Your task to perform on an android device: Open Google Chrome and click the shortcut for Amazon.com Image 0: 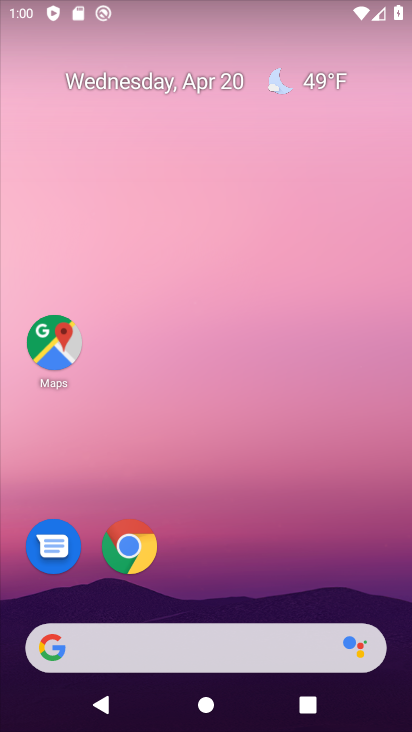
Step 0: click (130, 547)
Your task to perform on an android device: Open Google Chrome and click the shortcut for Amazon.com Image 1: 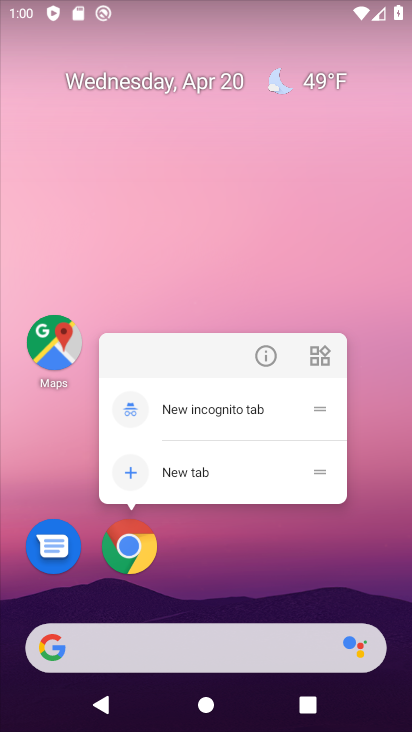
Step 1: click (129, 547)
Your task to perform on an android device: Open Google Chrome and click the shortcut for Amazon.com Image 2: 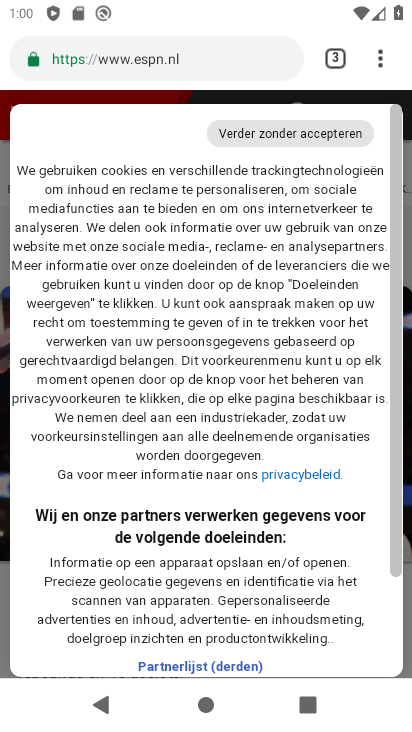
Step 2: click (333, 53)
Your task to perform on an android device: Open Google Chrome and click the shortcut for Amazon.com Image 3: 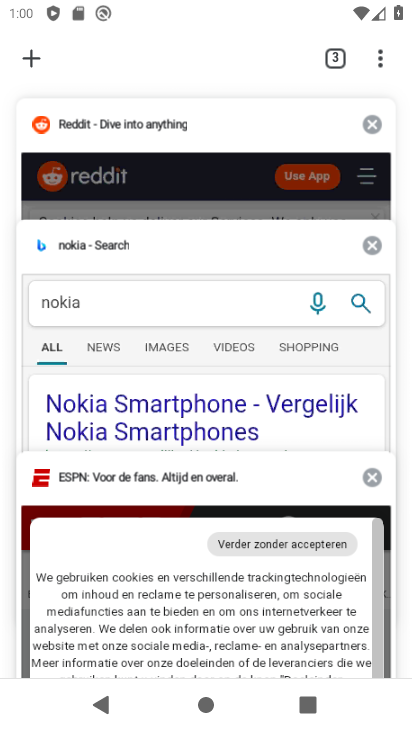
Step 3: click (35, 60)
Your task to perform on an android device: Open Google Chrome and click the shortcut for Amazon.com Image 4: 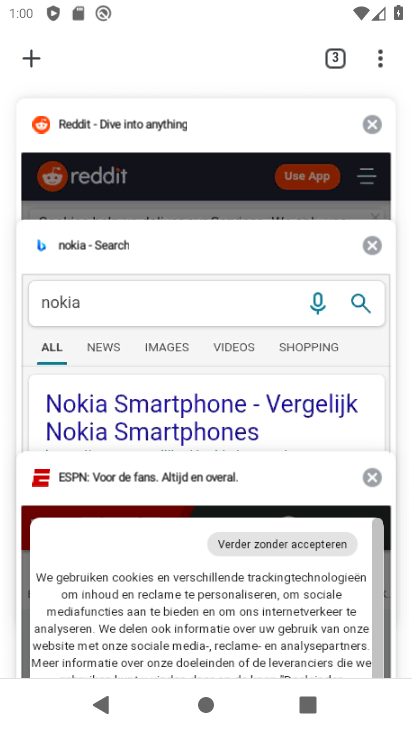
Step 4: click (35, 52)
Your task to perform on an android device: Open Google Chrome and click the shortcut for Amazon.com Image 5: 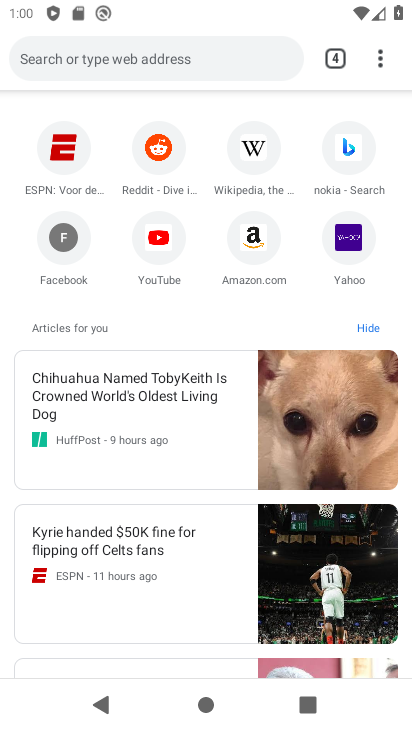
Step 5: click (247, 234)
Your task to perform on an android device: Open Google Chrome and click the shortcut for Amazon.com Image 6: 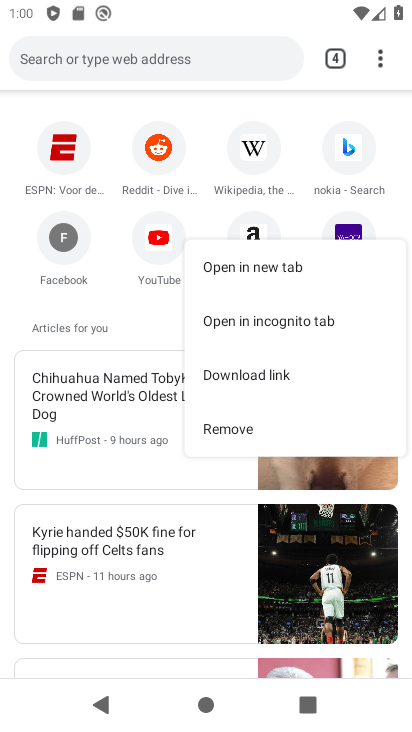
Step 6: click (251, 225)
Your task to perform on an android device: Open Google Chrome and click the shortcut for Amazon.com Image 7: 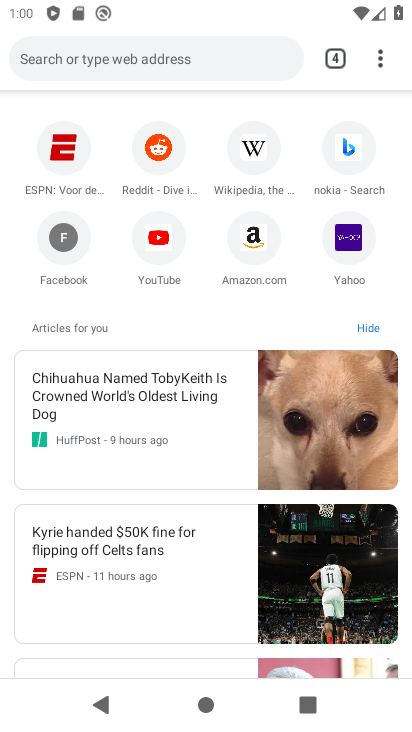
Step 7: click (253, 246)
Your task to perform on an android device: Open Google Chrome and click the shortcut for Amazon.com Image 8: 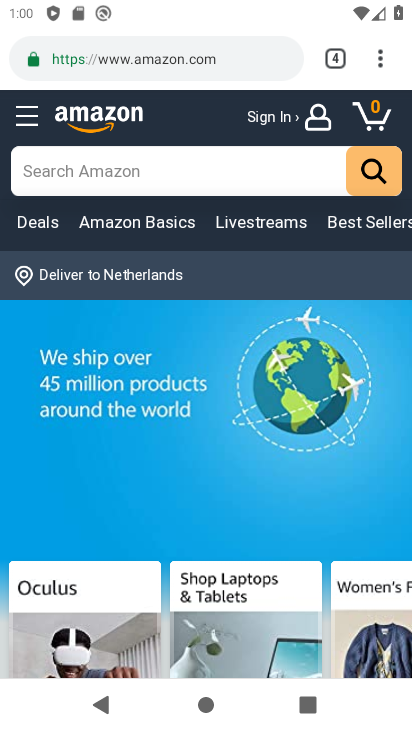
Step 8: task complete